Your task to perform on an android device: Open CNN.com Image 0: 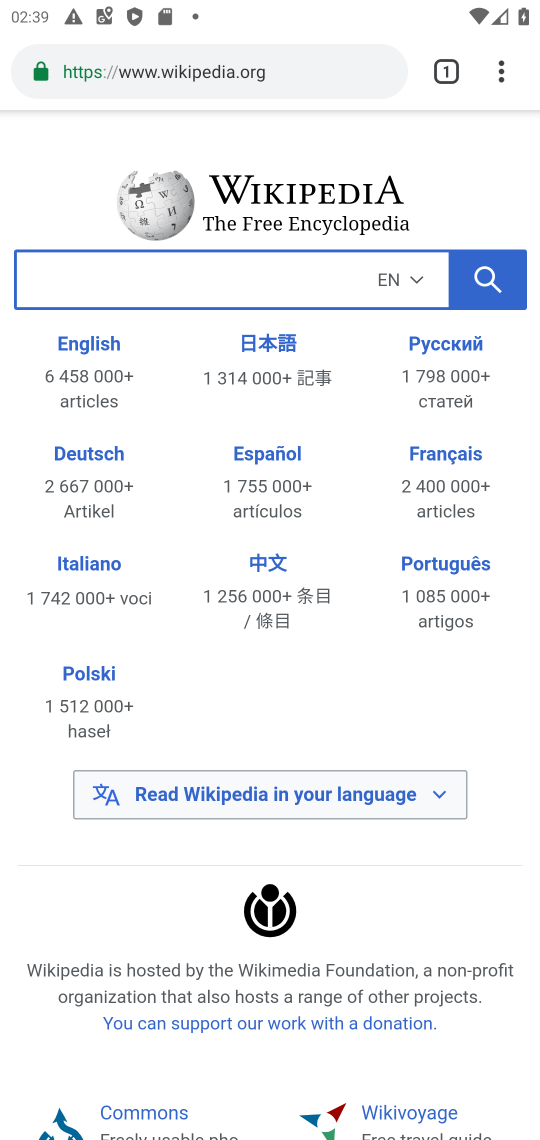
Step 0: press home button
Your task to perform on an android device: Open CNN.com Image 1: 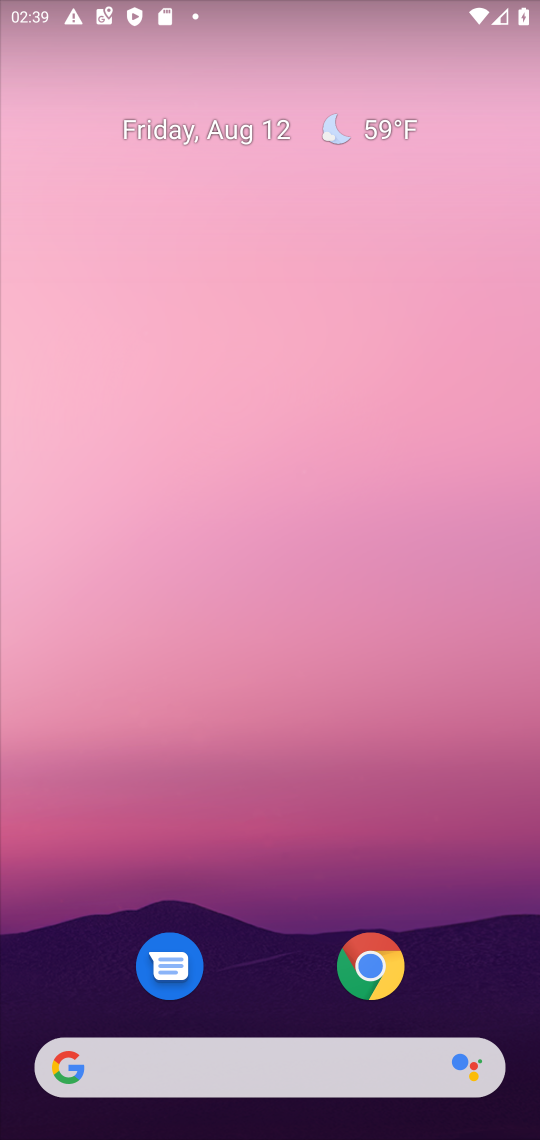
Step 1: drag from (281, 903) to (307, 130)
Your task to perform on an android device: Open CNN.com Image 2: 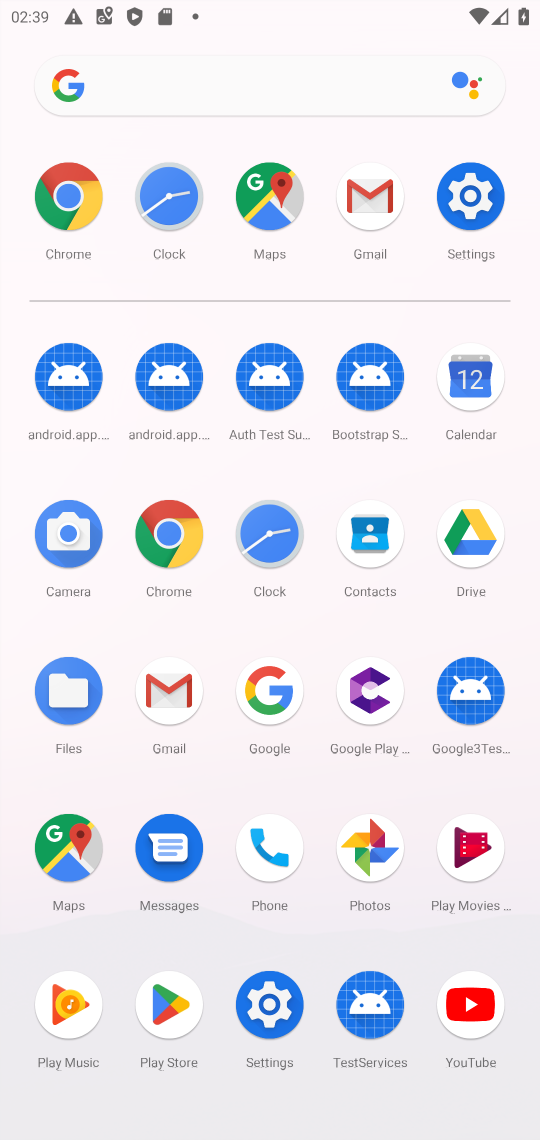
Step 2: click (154, 543)
Your task to perform on an android device: Open CNN.com Image 3: 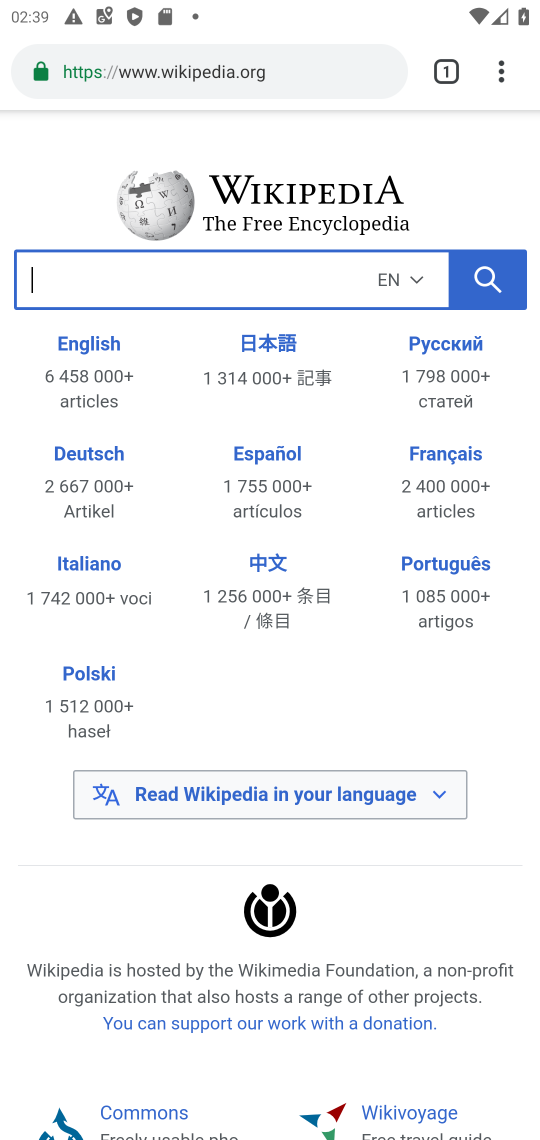
Step 3: click (294, 68)
Your task to perform on an android device: Open CNN.com Image 4: 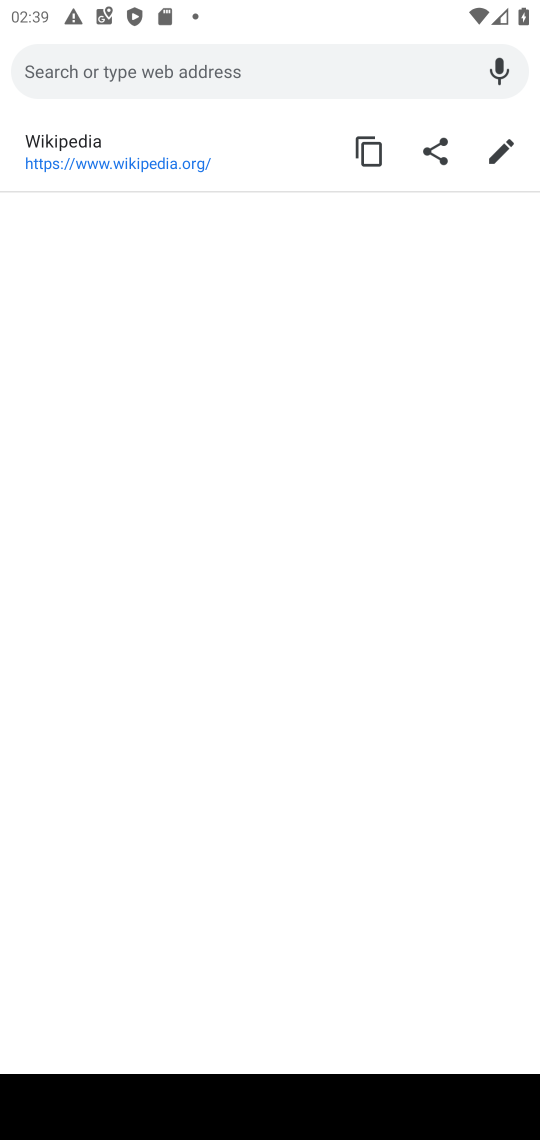
Step 4: type "cnn.com"
Your task to perform on an android device: Open CNN.com Image 5: 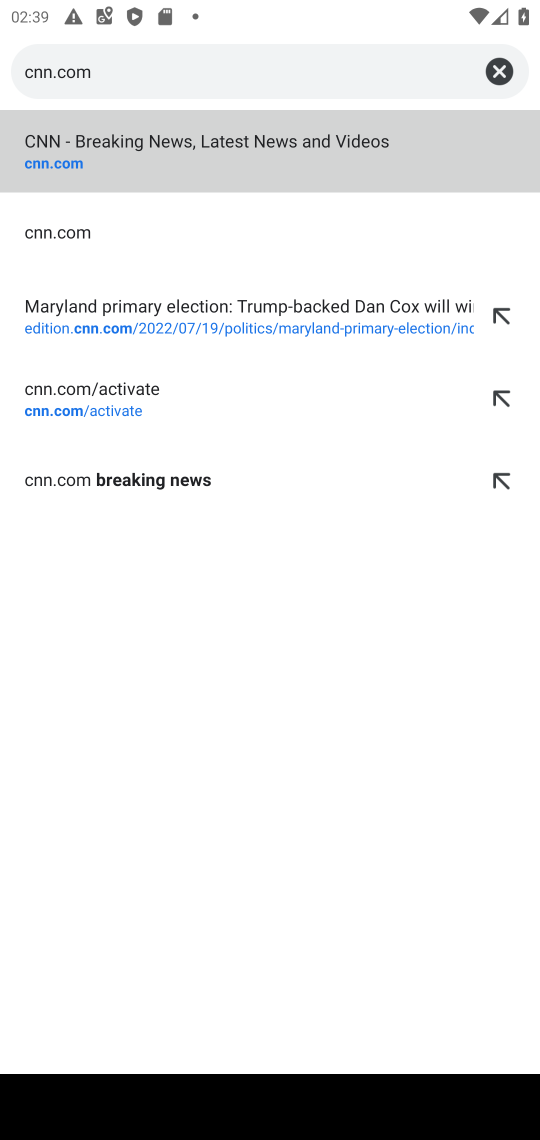
Step 5: click (93, 156)
Your task to perform on an android device: Open CNN.com Image 6: 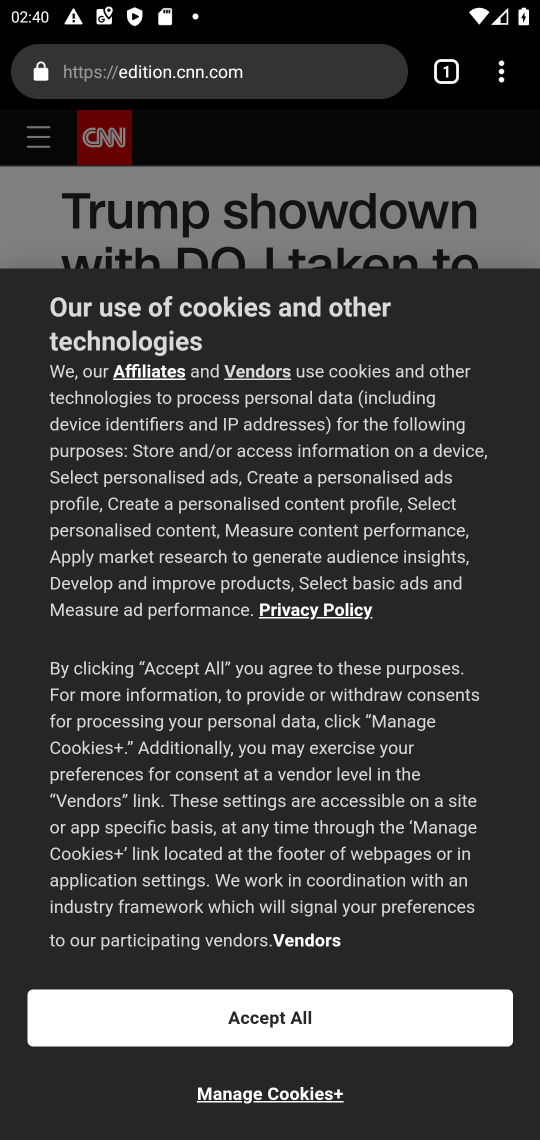
Step 6: task complete